Your task to perform on an android device: Open Reddit.com Image 0: 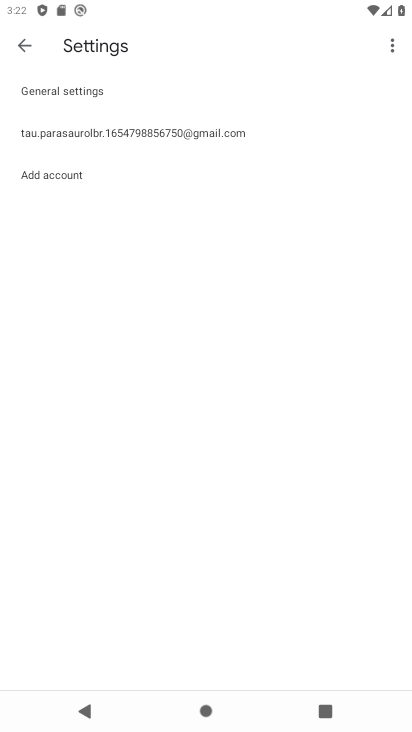
Step 0: press home button
Your task to perform on an android device: Open Reddit.com Image 1: 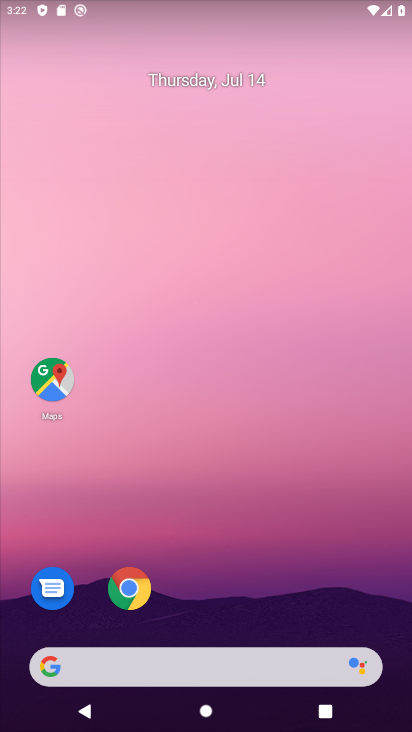
Step 1: drag from (232, 572) to (152, 47)
Your task to perform on an android device: Open Reddit.com Image 2: 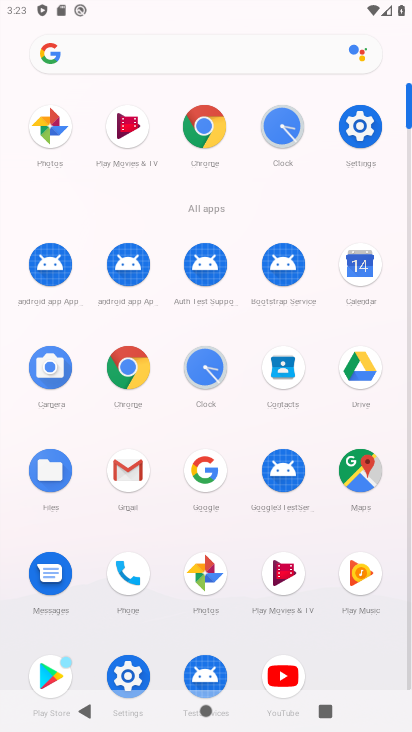
Step 2: click (205, 130)
Your task to perform on an android device: Open Reddit.com Image 3: 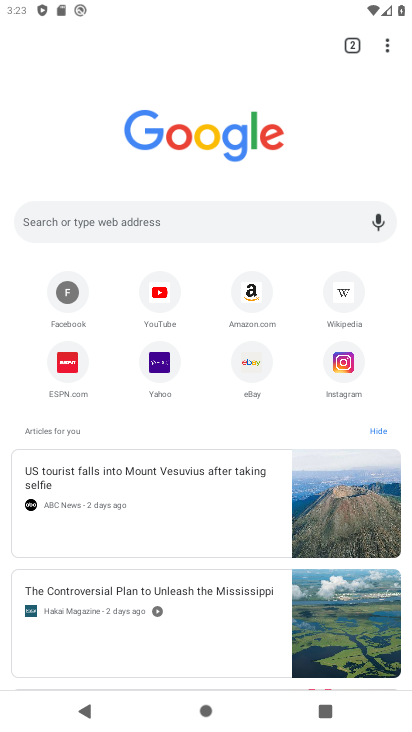
Step 3: click (122, 217)
Your task to perform on an android device: Open Reddit.com Image 4: 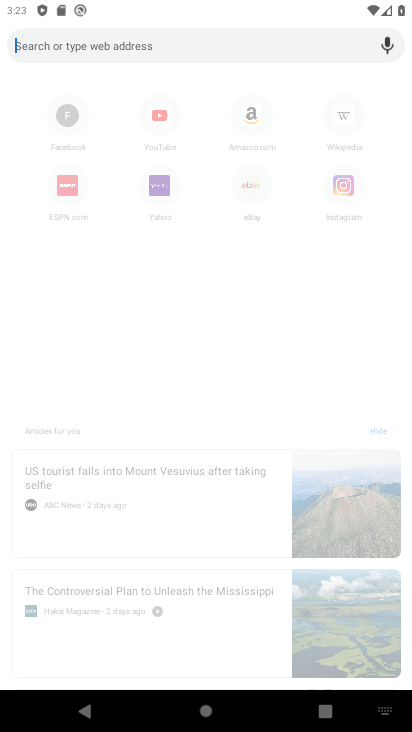
Step 4: type "Reddit.com"
Your task to perform on an android device: Open Reddit.com Image 5: 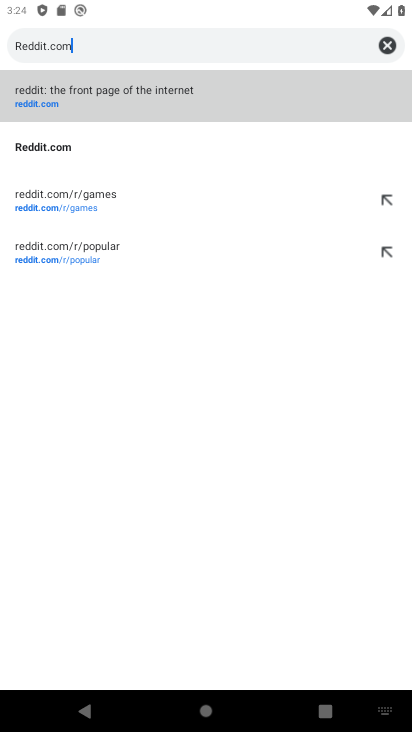
Step 5: click (52, 158)
Your task to perform on an android device: Open Reddit.com Image 6: 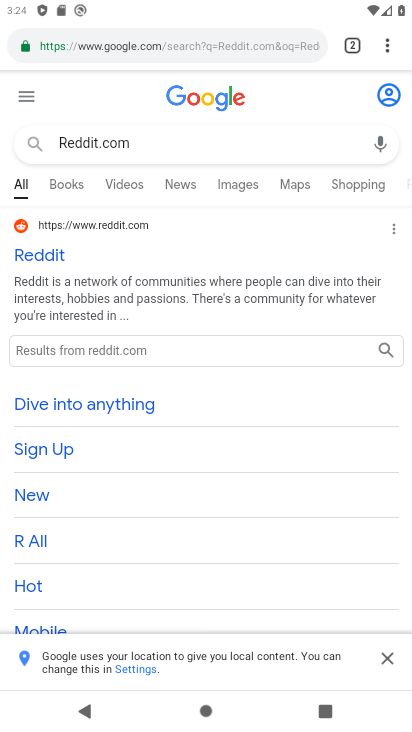
Step 6: task complete